Your task to perform on an android device: see sites visited before in the chrome app Image 0: 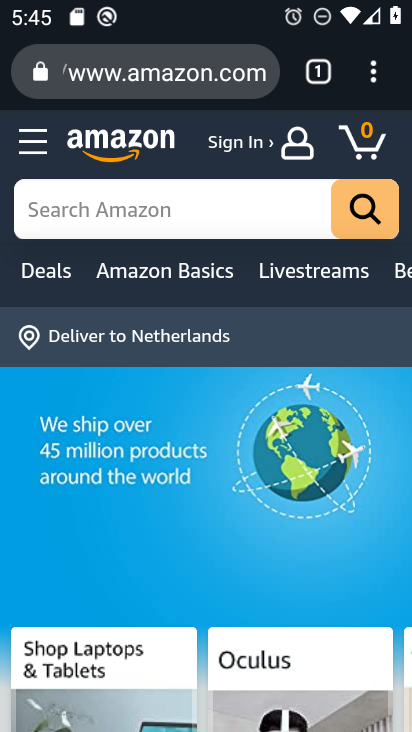
Step 0: press home button
Your task to perform on an android device: see sites visited before in the chrome app Image 1: 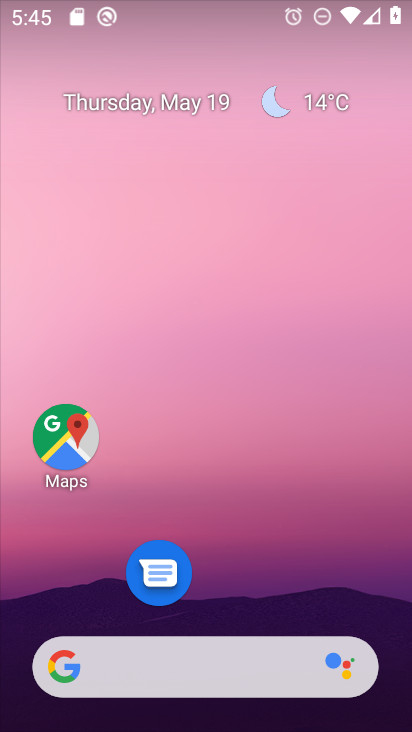
Step 1: drag from (214, 603) to (218, 192)
Your task to perform on an android device: see sites visited before in the chrome app Image 2: 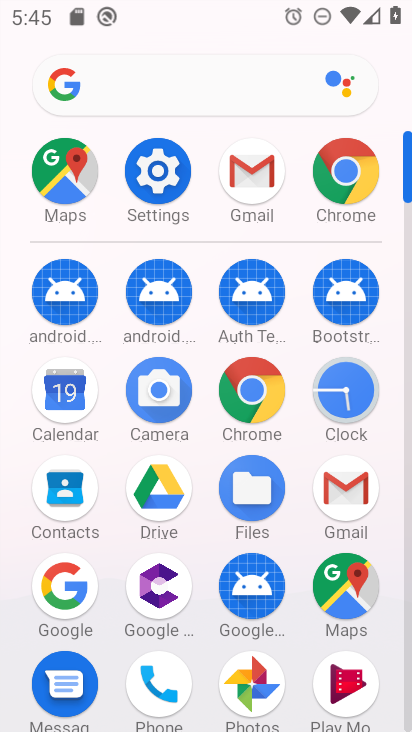
Step 2: click (348, 216)
Your task to perform on an android device: see sites visited before in the chrome app Image 3: 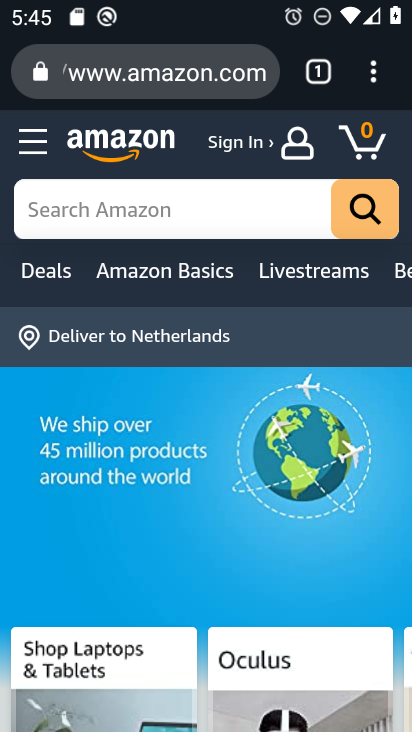
Step 3: click (370, 83)
Your task to perform on an android device: see sites visited before in the chrome app Image 4: 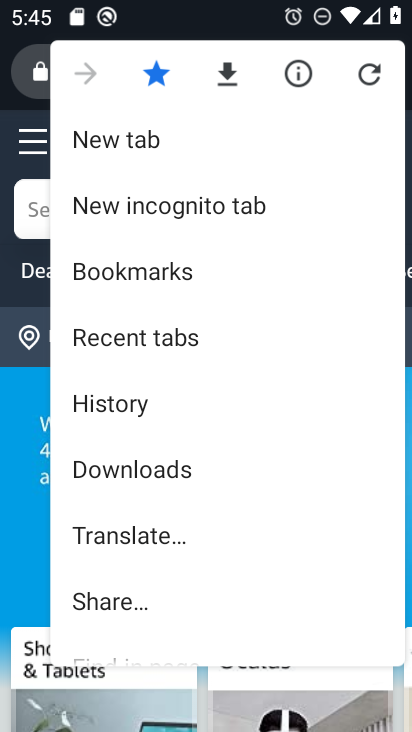
Step 4: click (132, 415)
Your task to perform on an android device: see sites visited before in the chrome app Image 5: 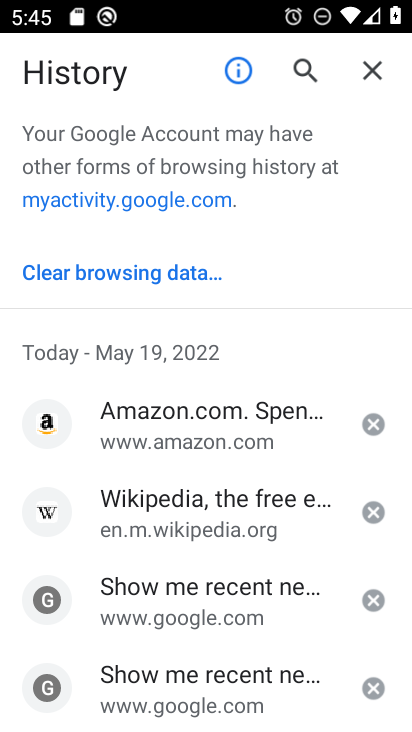
Step 5: task complete